Your task to perform on an android device: allow cookies in the chrome app Image 0: 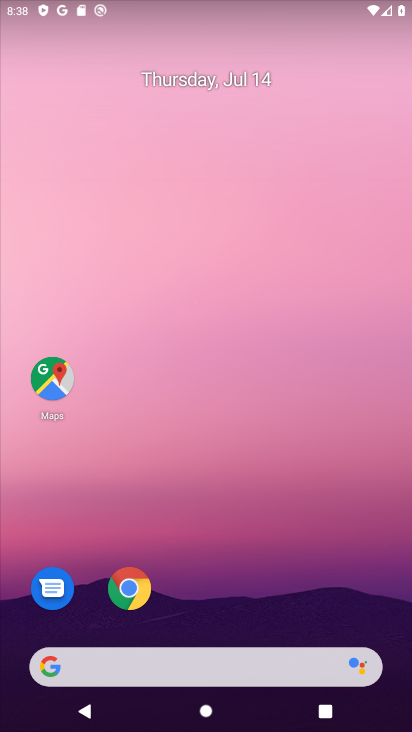
Step 0: drag from (282, 632) to (220, 210)
Your task to perform on an android device: allow cookies in the chrome app Image 1: 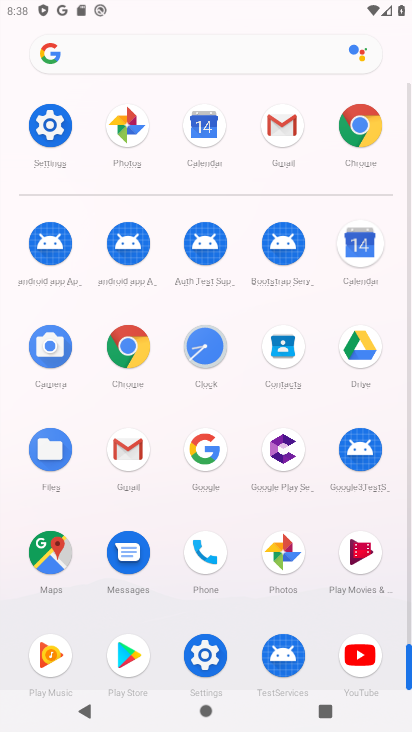
Step 1: click (367, 132)
Your task to perform on an android device: allow cookies in the chrome app Image 2: 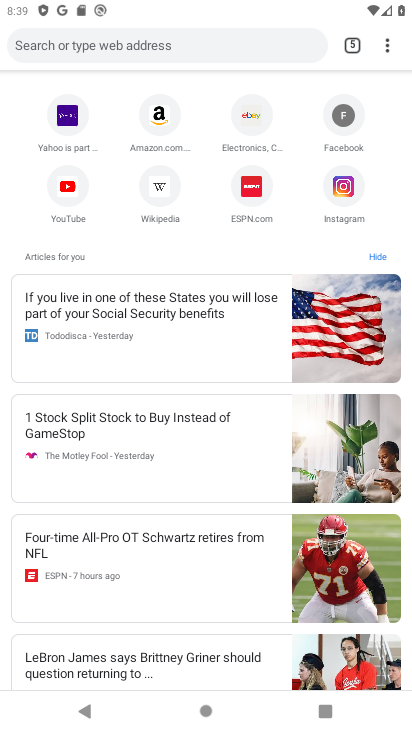
Step 2: click (385, 48)
Your task to perform on an android device: allow cookies in the chrome app Image 3: 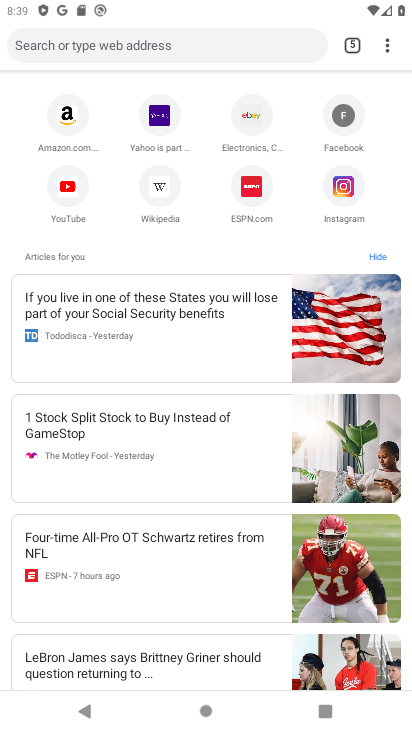
Step 3: click (388, 46)
Your task to perform on an android device: allow cookies in the chrome app Image 4: 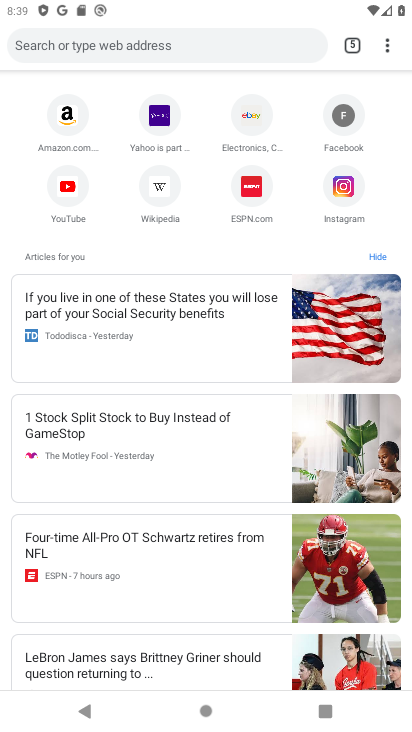
Step 4: drag from (383, 47) to (219, 391)
Your task to perform on an android device: allow cookies in the chrome app Image 5: 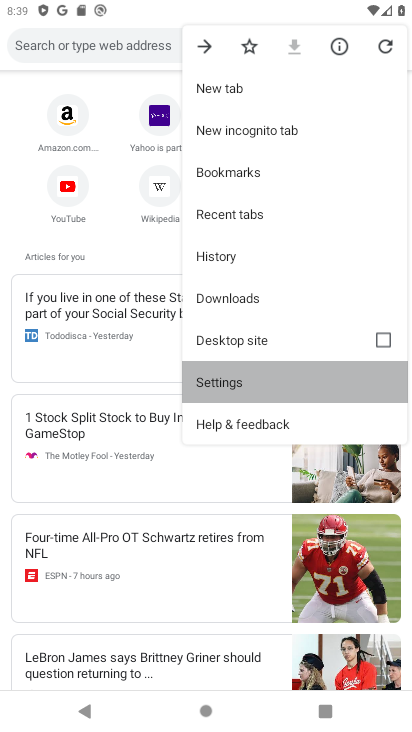
Step 5: click (219, 391)
Your task to perform on an android device: allow cookies in the chrome app Image 6: 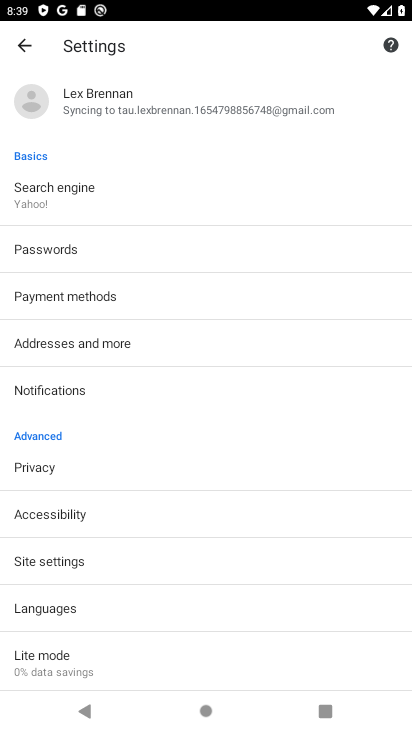
Step 6: click (38, 555)
Your task to perform on an android device: allow cookies in the chrome app Image 7: 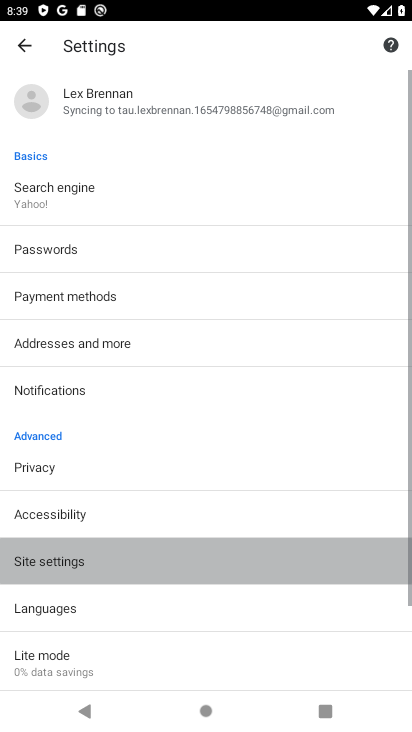
Step 7: click (33, 559)
Your task to perform on an android device: allow cookies in the chrome app Image 8: 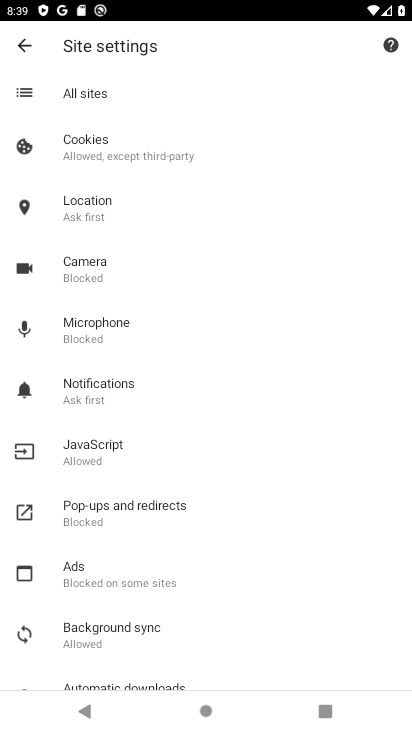
Step 8: click (97, 145)
Your task to perform on an android device: allow cookies in the chrome app Image 9: 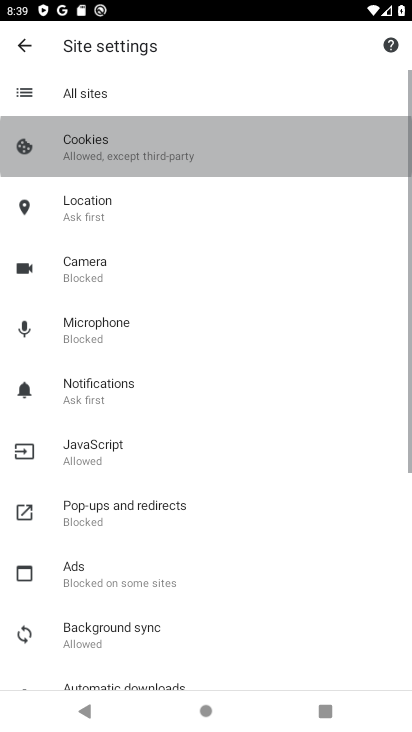
Step 9: click (97, 145)
Your task to perform on an android device: allow cookies in the chrome app Image 10: 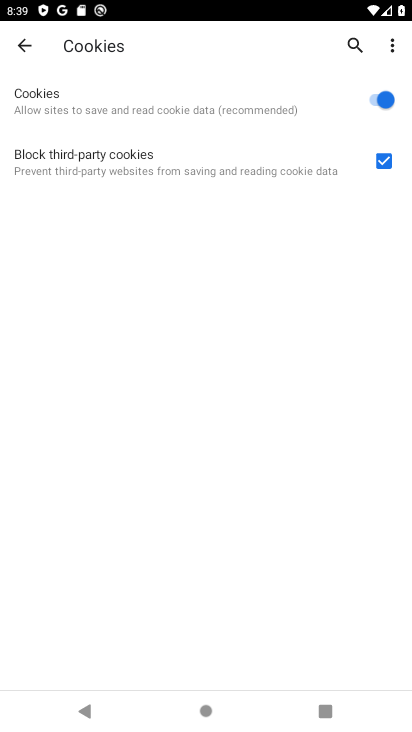
Step 10: task complete